Your task to perform on an android device: Go to Reddit.com Image 0: 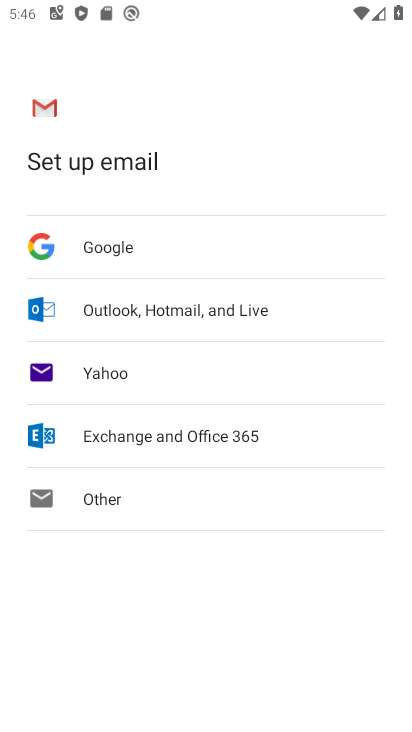
Step 0: press home button
Your task to perform on an android device: Go to Reddit.com Image 1: 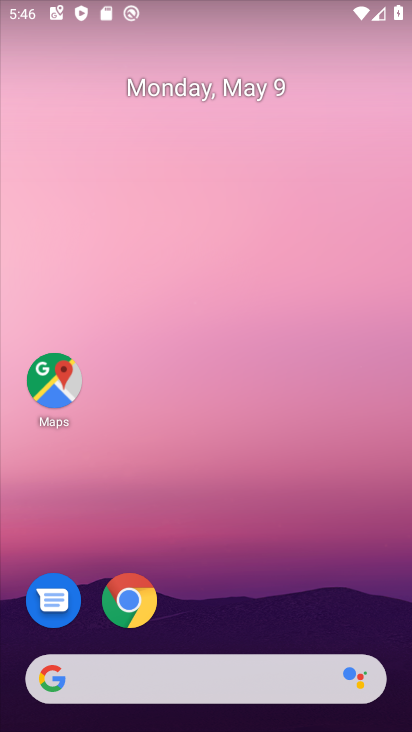
Step 1: click (139, 606)
Your task to perform on an android device: Go to Reddit.com Image 2: 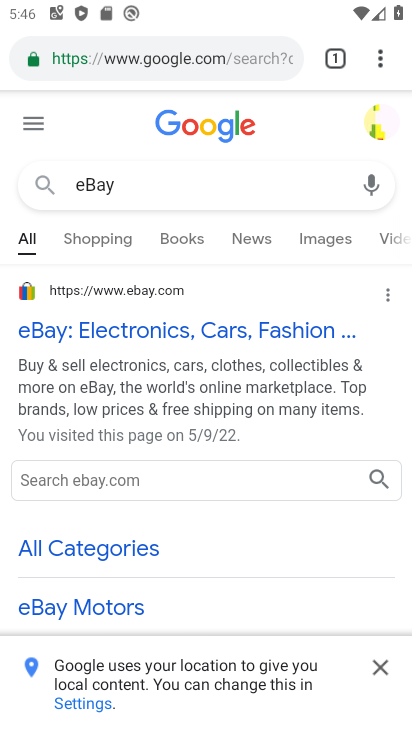
Step 2: click (200, 70)
Your task to perform on an android device: Go to Reddit.com Image 3: 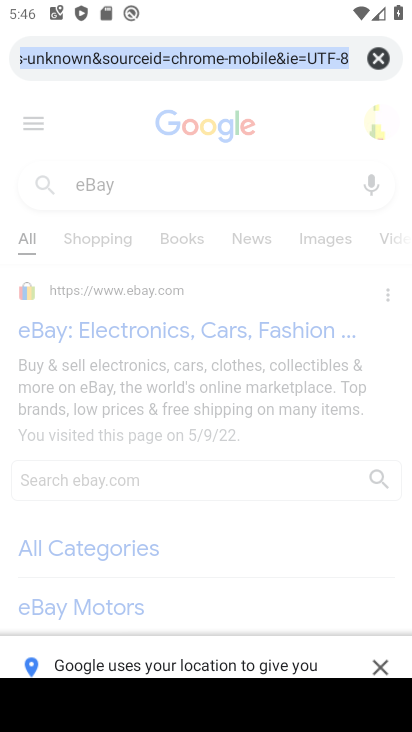
Step 3: type "reddit.com"
Your task to perform on an android device: Go to Reddit.com Image 4: 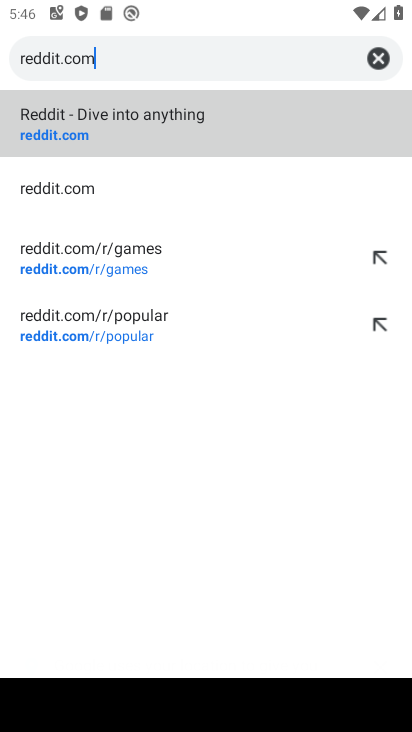
Step 4: click (98, 198)
Your task to perform on an android device: Go to Reddit.com Image 5: 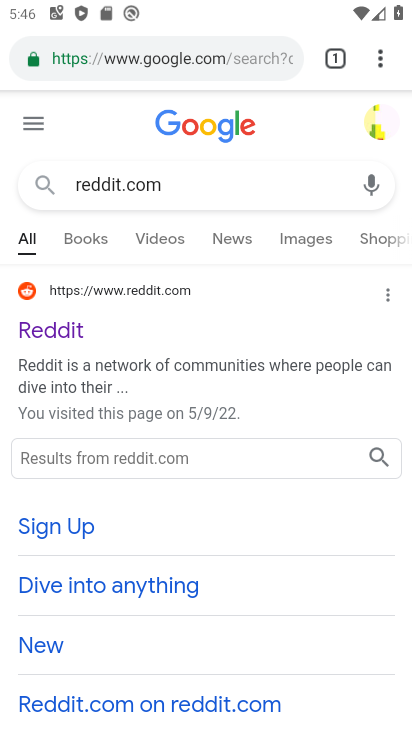
Step 5: task complete